Your task to perform on an android device: delete the emails in spam in the gmail app Image 0: 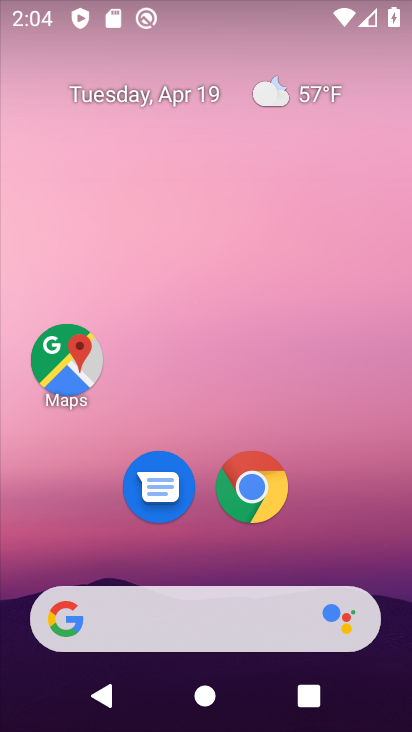
Step 0: drag from (130, 568) to (228, 9)
Your task to perform on an android device: delete the emails in spam in the gmail app Image 1: 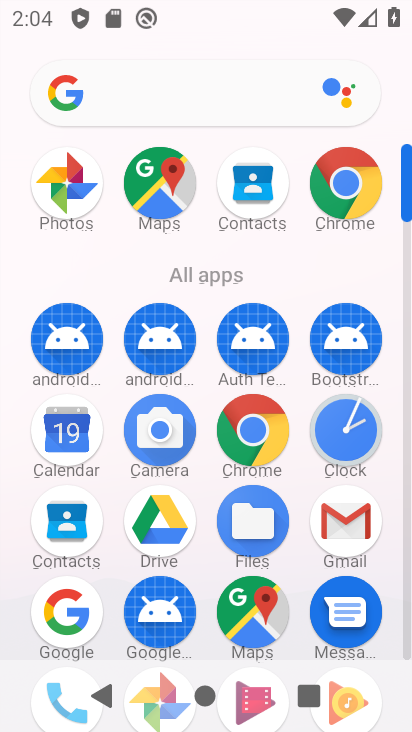
Step 1: click (345, 544)
Your task to perform on an android device: delete the emails in spam in the gmail app Image 2: 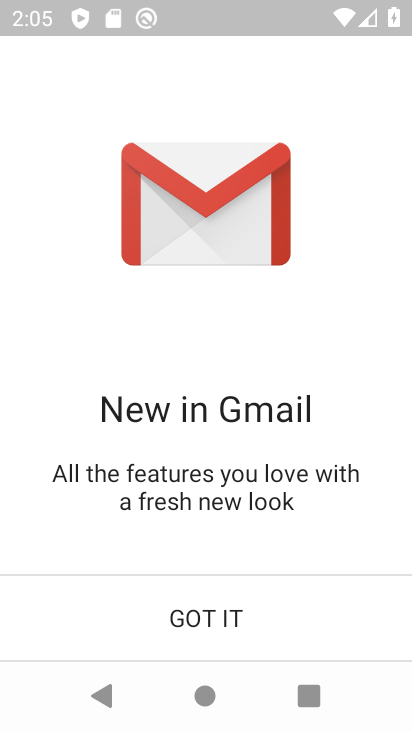
Step 2: click (183, 622)
Your task to perform on an android device: delete the emails in spam in the gmail app Image 3: 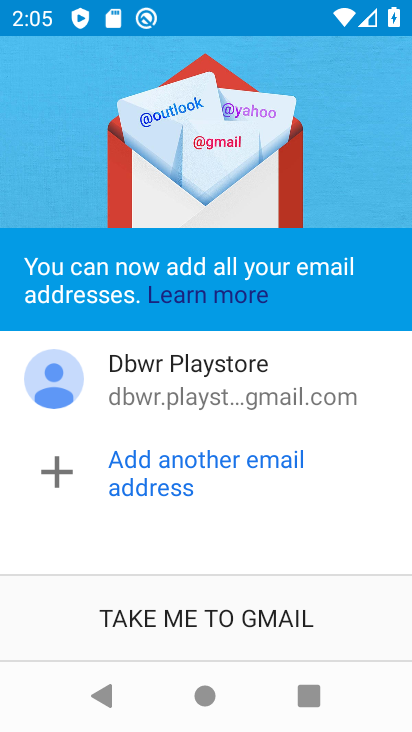
Step 3: click (183, 622)
Your task to perform on an android device: delete the emails in spam in the gmail app Image 4: 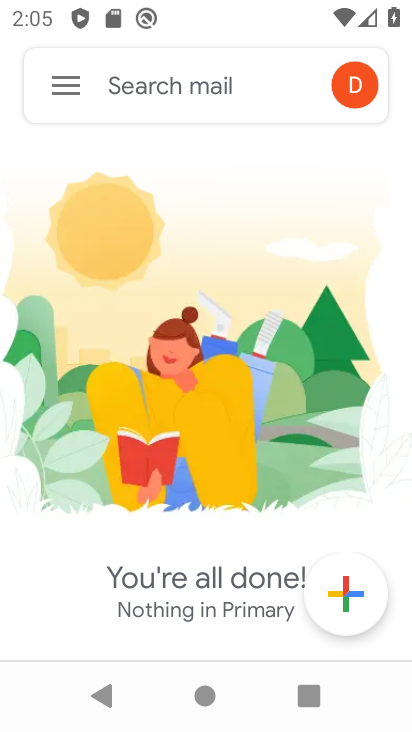
Step 4: click (39, 82)
Your task to perform on an android device: delete the emails in spam in the gmail app Image 5: 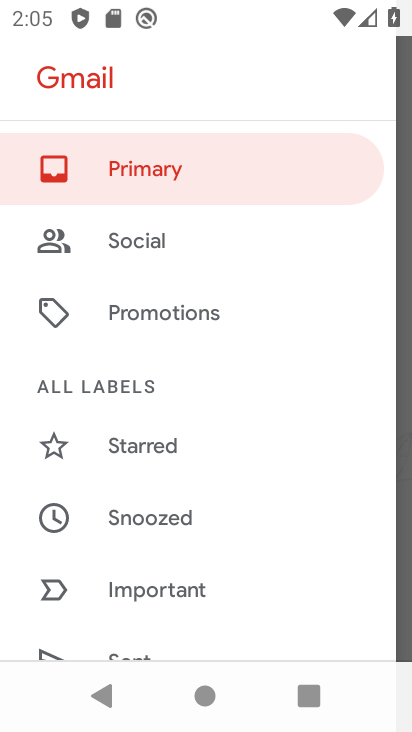
Step 5: drag from (160, 581) to (299, 26)
Your task to perform on an android device: delete the emails in spam in the gmail app Image 6: 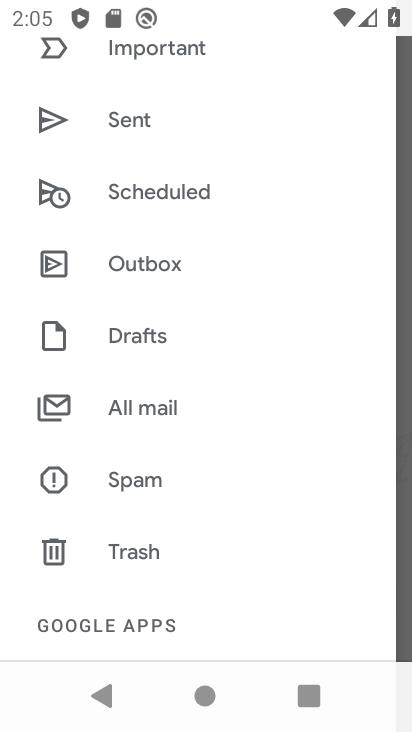
Step 6: click (137, 499)
Your task to perform on an android device: delete the emails in spam in the gmail app Image 7: 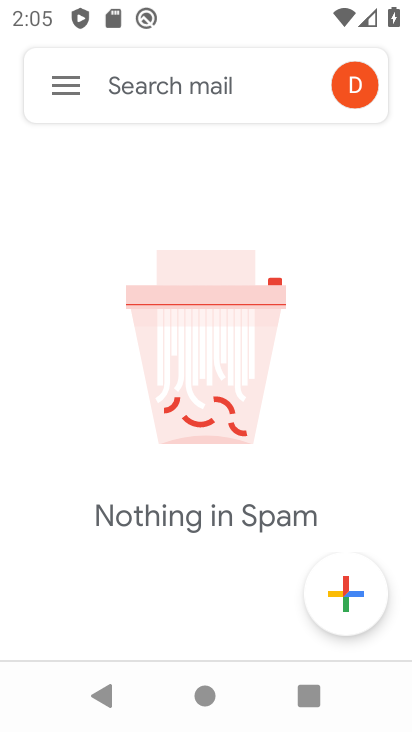
Step 7: task complete